Your task to perform on an android device: find photos in the google photos app Image 0: 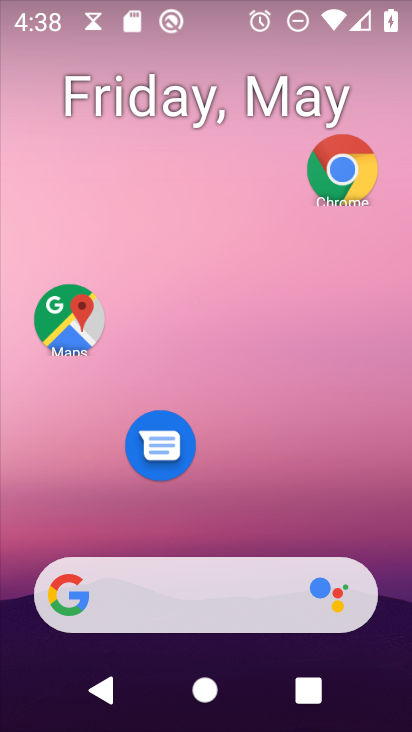
Step 0: drag from (239, 535) to (162, 1)
Your task to perform on an android device: find photos in the google photos app Image 1: 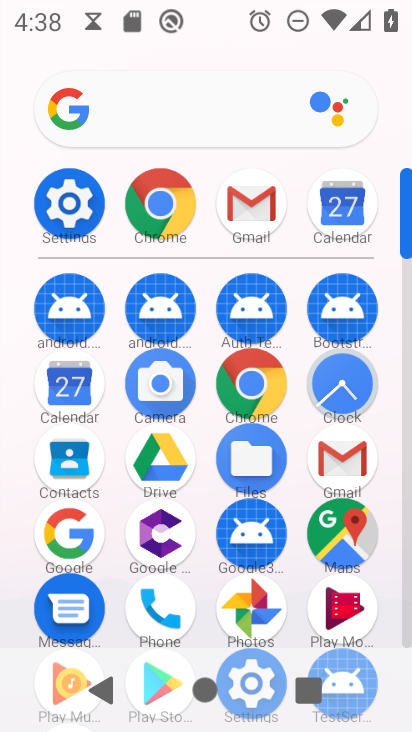
Step 1: click (246, 610)
Your task to perform on an android device: find photos in the google photos app Image 2: 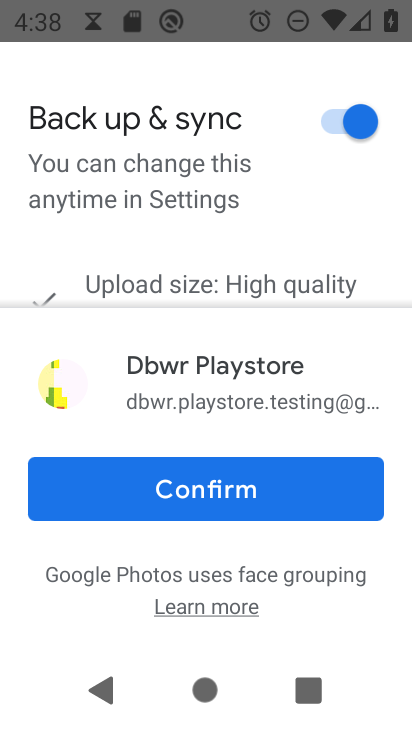
Step 2: click (157, 482)
Your task to perform on an android device: find photos in the google photos app Image 3: 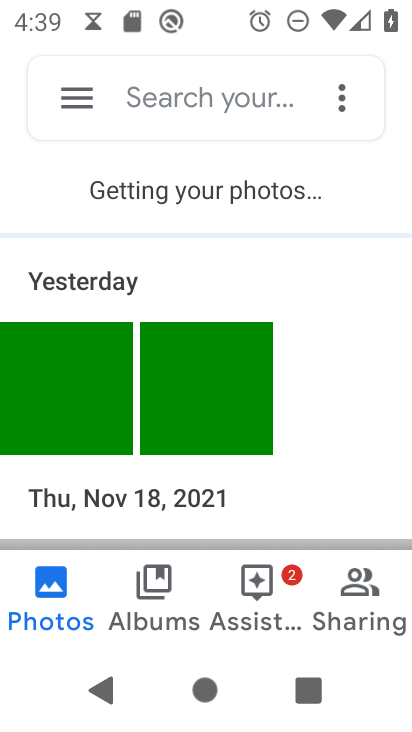
Step 3: task complete